Your task to perform on an android device: see sites visited before in the chrome app Image 0: 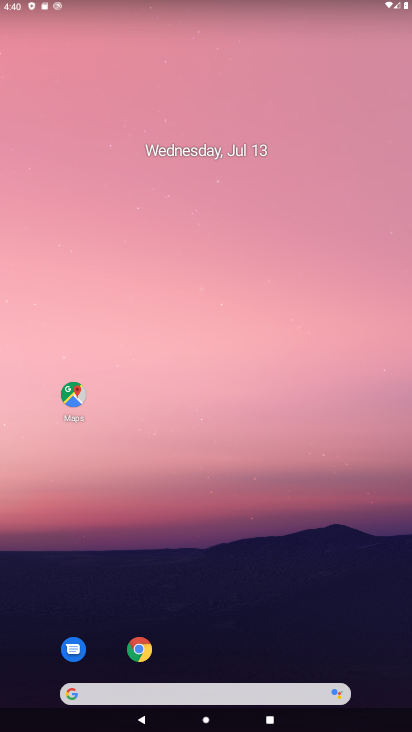
Step 0: drag from (330, 571) to (308, 33)
Your task to perform on an android device: see sites visited before in the chrome app Image 1: 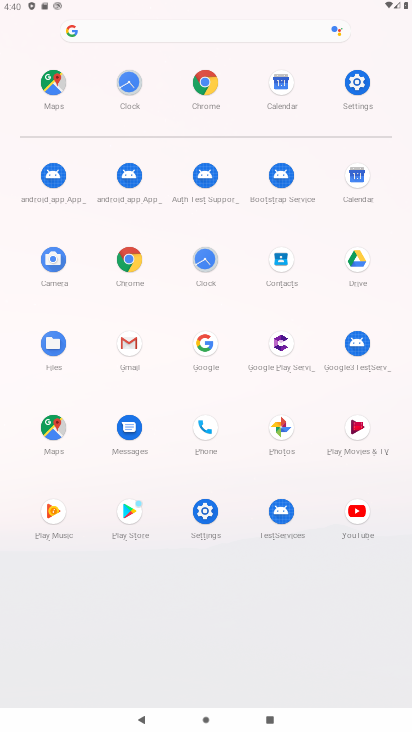
Step 1: click (206, 83)
Your task to perform on an android device: see sites visited before in the chrome app Image 2: 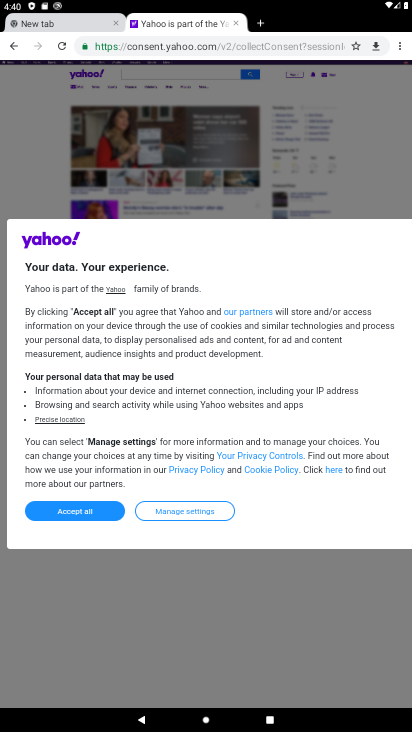
Step 2: task complete